Your task to perform on an android device: Show me the alarms in the clock app Image 0: 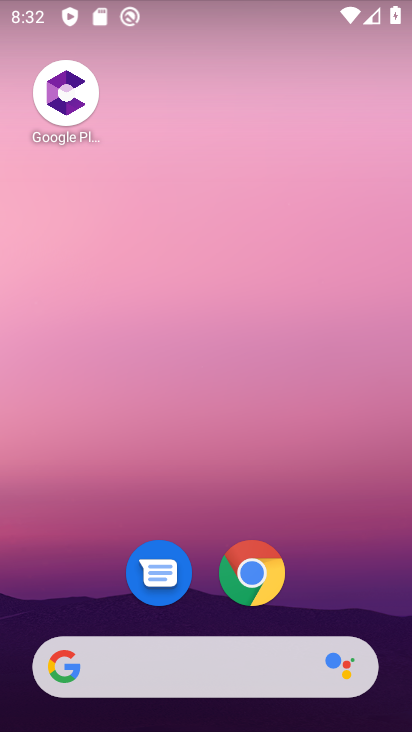
Step 0: drag from (363, 586) to (352, 164)
Your task to perform on an android device: Show me the alarms in the clock app Image 1: 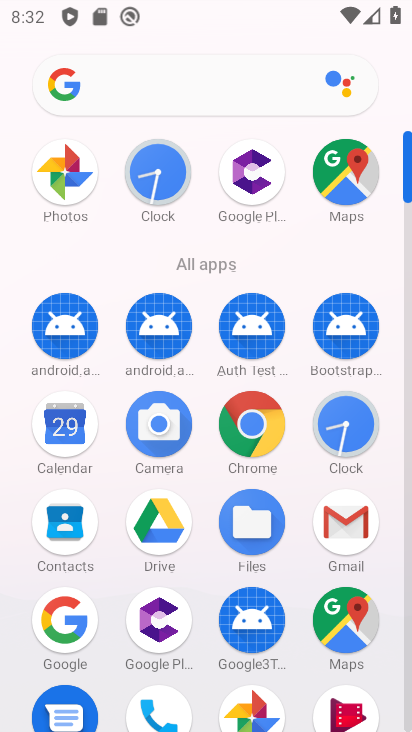
Step 1: click (315, 422)
Your task to perform on an android device: Show me the alarms in the clock app Image 2: 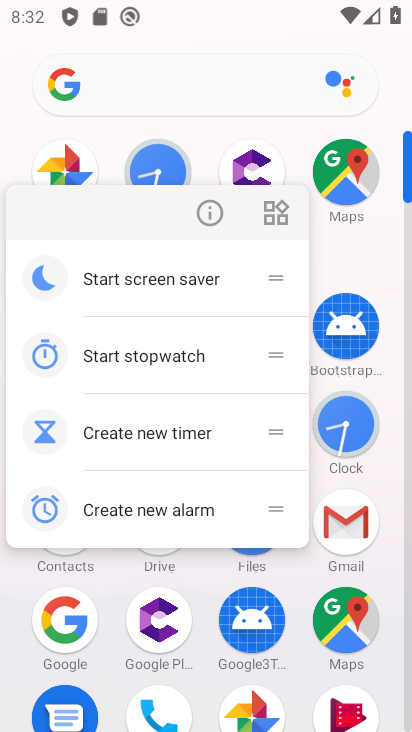
Step 2: click (330, 422)
Your task to perform on an android device: Show me the alarms in the clock app Image 3: 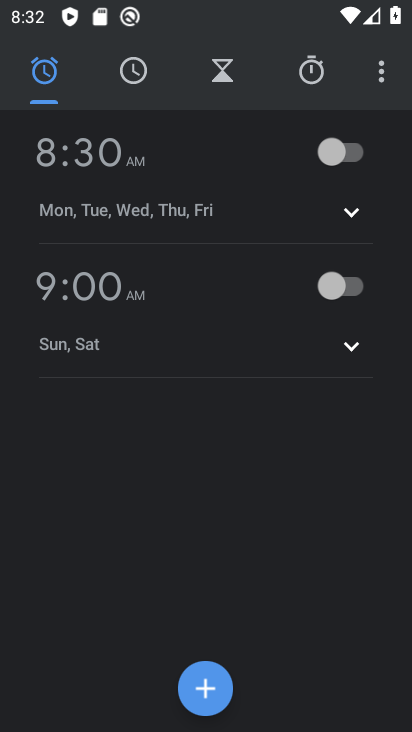
Step 3: task complete